Your task to perform on an android device: add a contact in the contacts app Image 0: 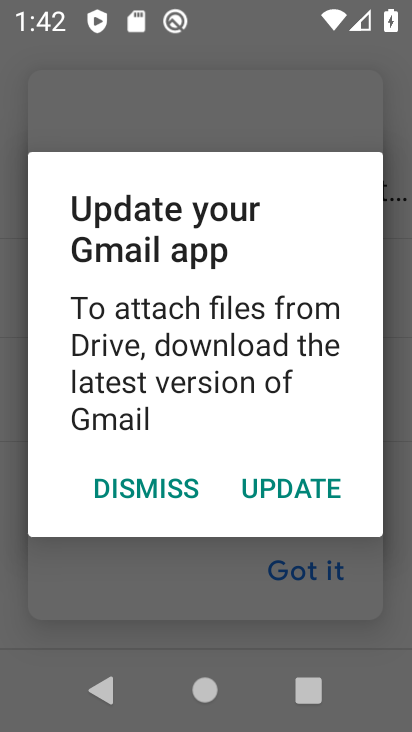
Step 0: press home button
Your task to perform on an android device: add a contact in the contacts app Image 1: 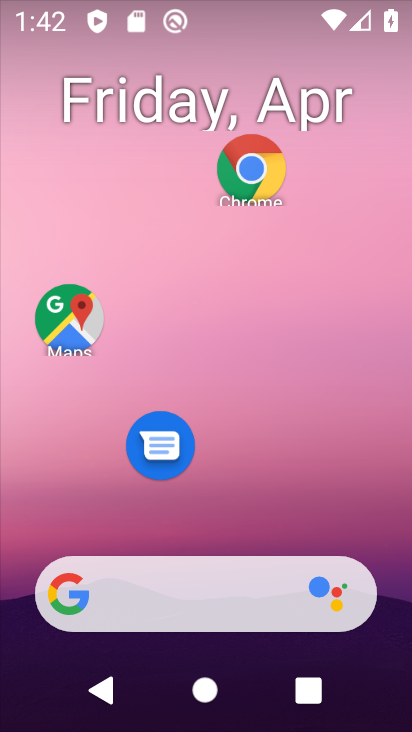
Step 1: drag from (257, 653) to (159, 311)
Your task to perform on an android device: add a contact in the contacts app Image 2: 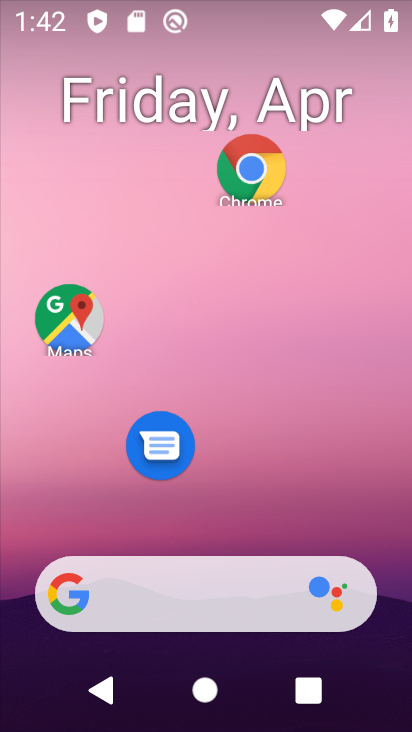
Step 2: drag from (281, 611) to (340, 7)
Your task to perform on an android device: add a contact in the contacts app Image 3: 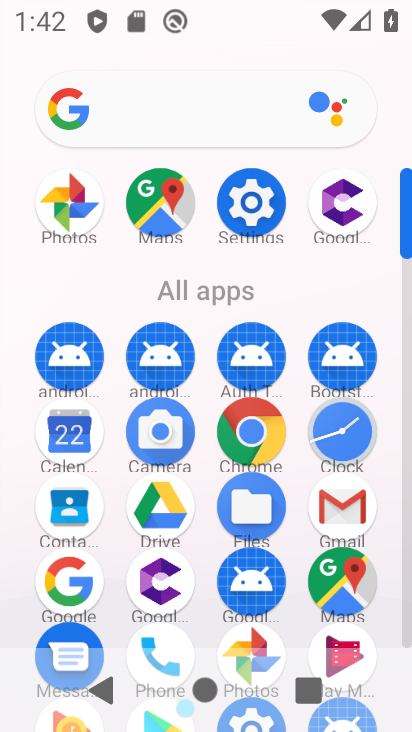
Step 3: drag from (254, 654) to (233, 315)
Your task to perform on an android device: add a contact in the contacts app Image 4: 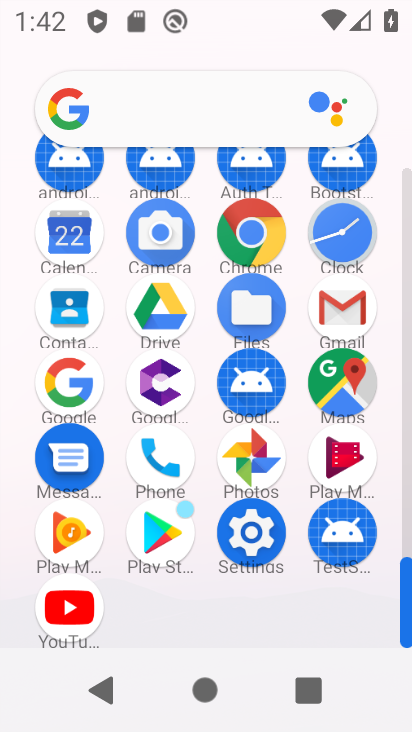
Step 4: click (72, 318)
Your task to perform on an android device: add a contact in the contacts app Image 5: 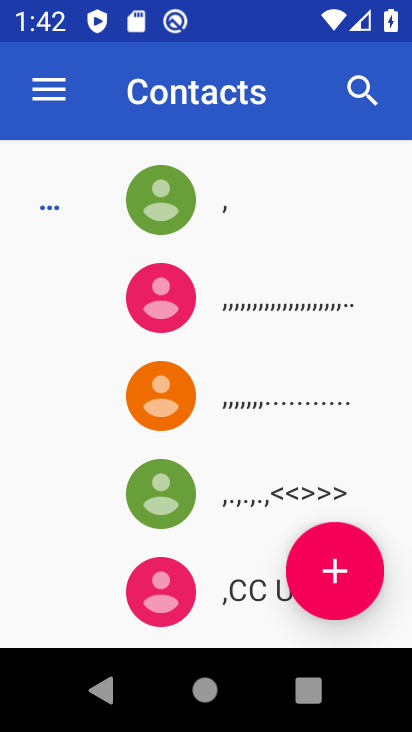
Step 5: click (345, 555)
Your task to perform on an android device: add a contact in the contacts app Image 6: 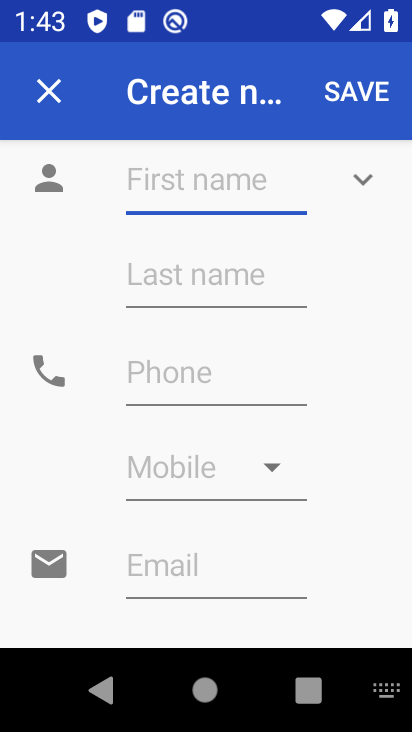
Step 6: type "abc"
Your task to perform on an android device: add a contact in the contacts app Image 7: 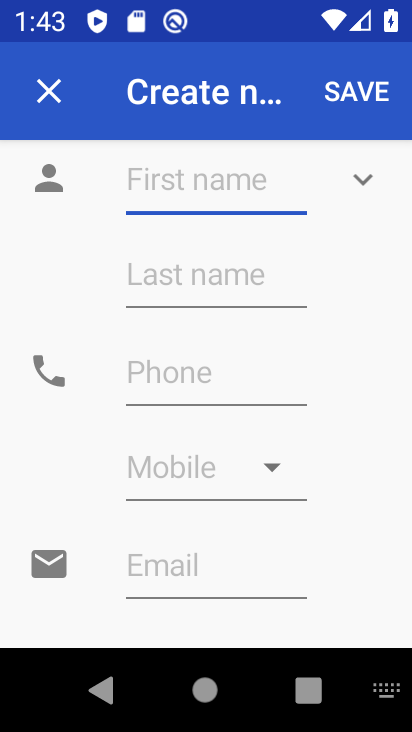
Step 7: click (250, 383)
Your task to perform on an android device: add a contact in the contacts app Image 8: 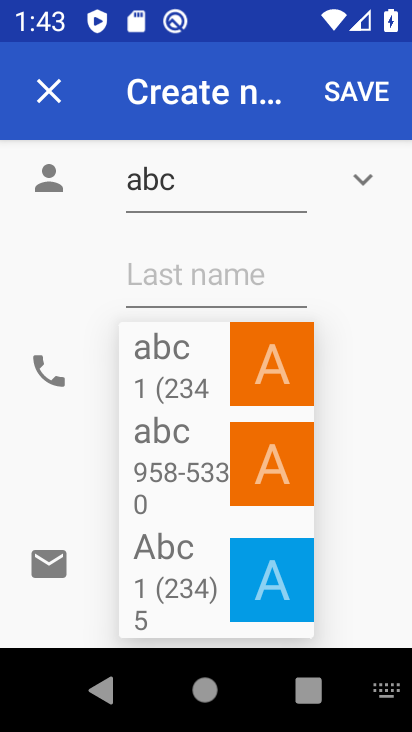
Step 8: type "1425378765467"
Your task to perform on an android device: add a contact in the contacts app Image 9: 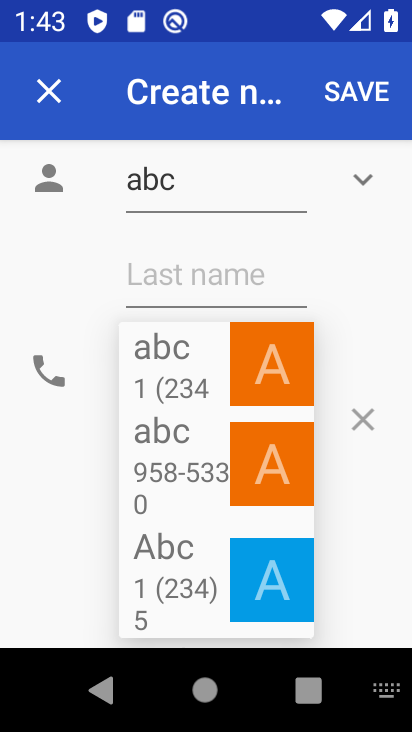
Step 9: click (372, 474)
Your task to perform on an android device: add a contact in the contacts app Image 10: 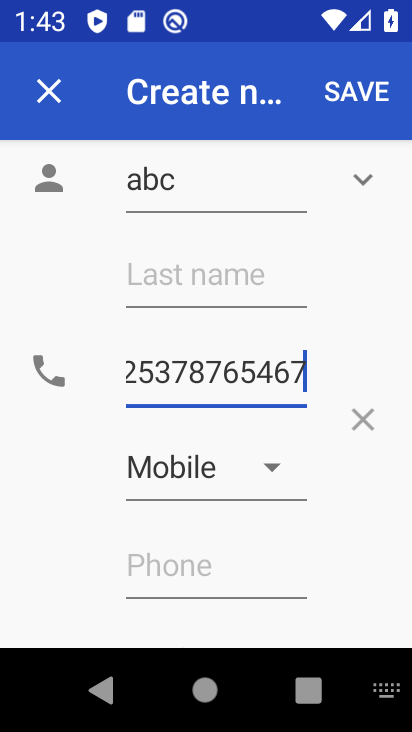
Step 10: click (347, 102)
Your task to perform on an android device: add a contact in the contacts app Image 11: 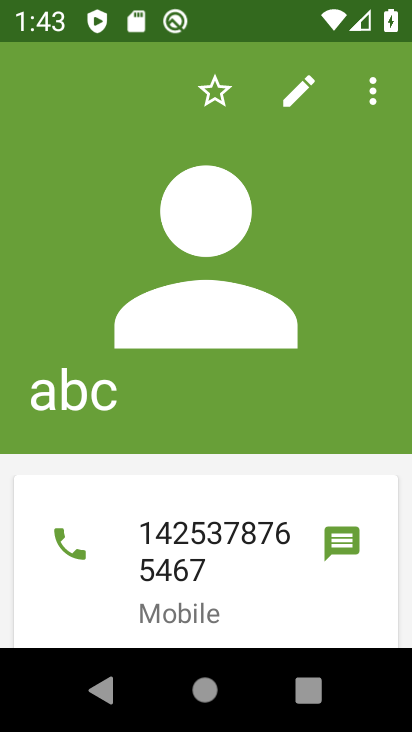
Step 11: task complete